Your task to perform on an android device: Open calendar and show me the third week of next month Image 0: 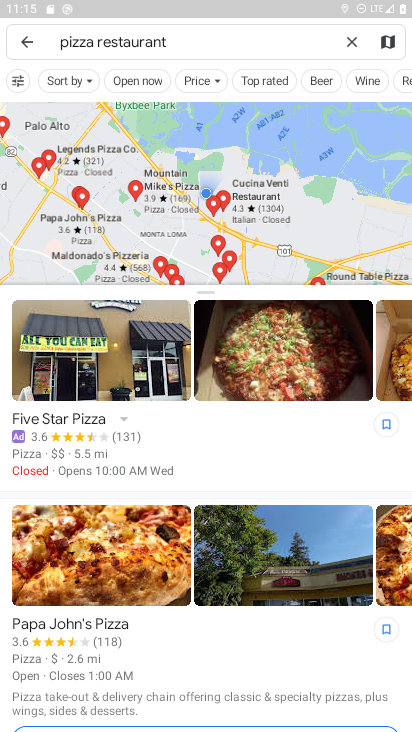
Step 0: press home button
Your task to perform on an android device: Open calendar and show me the third week of next month Image 1: 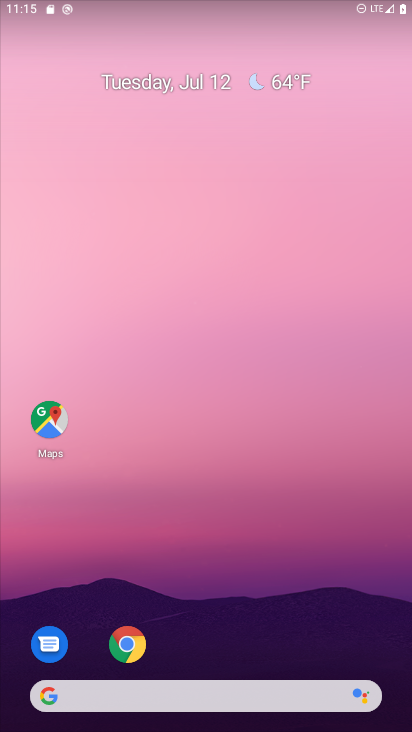
Step 1: drag from (250, 627) to (238, 145)
Your task to perform on an android device: Open calendar and show me the third week of next month Image 2: 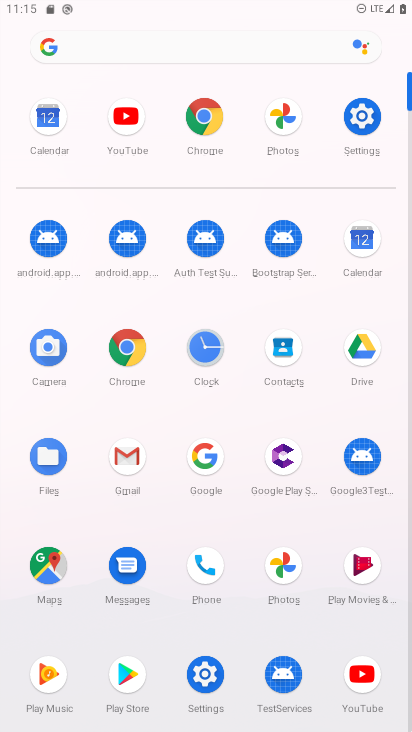
Step 2: click (353, 237)
Your task to perform on an android device: Open calendar and show me the third week of next month Image 3: 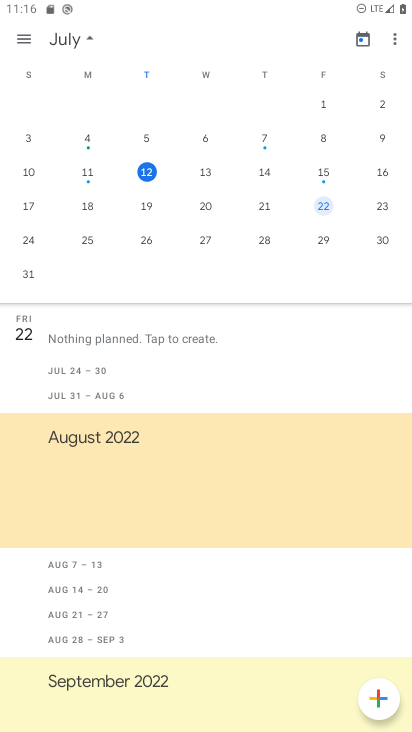
Step 3: drag from (368, 211) to (5, 197)
Your task to perform on an android device: Open calendar and show me the third week of next month Image 4: 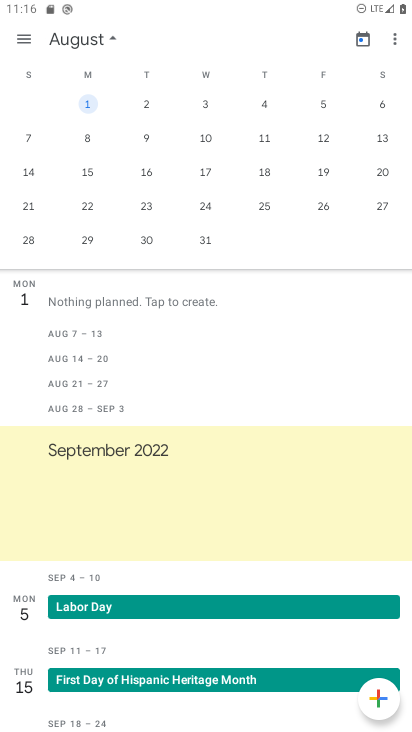
Step 4: click (150, 202)
Your task to perform on an android device: Open calendar and show me the third week of next month Image 5: 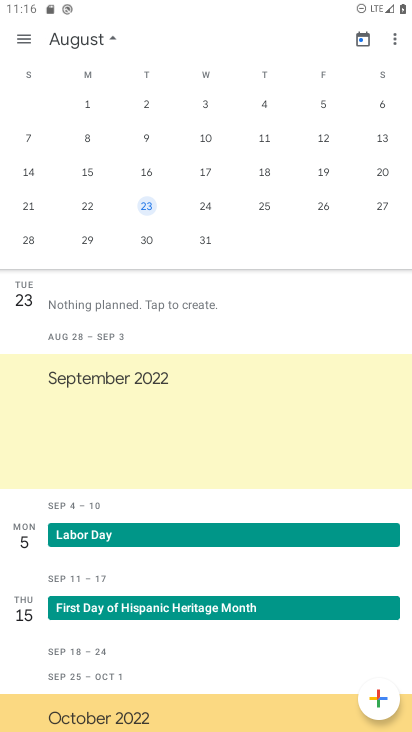
Step 5: task complete